Your task to perform on an android device: Is it going to rain this weekend? Image 0: 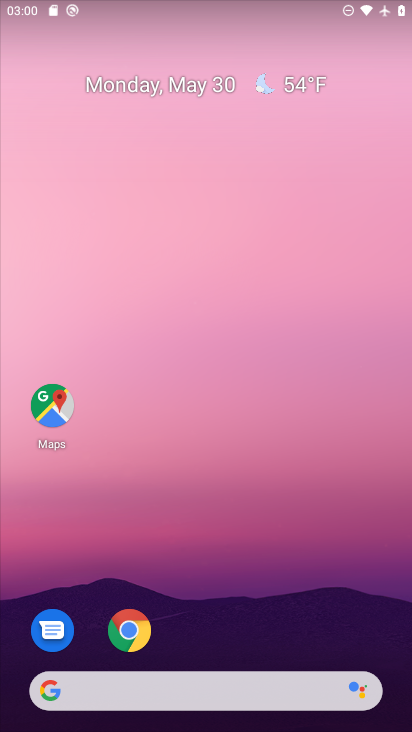
Step 0: click (306, 80)
Your task to perform on an android device: Is it going to rain this weekend? Image 1: 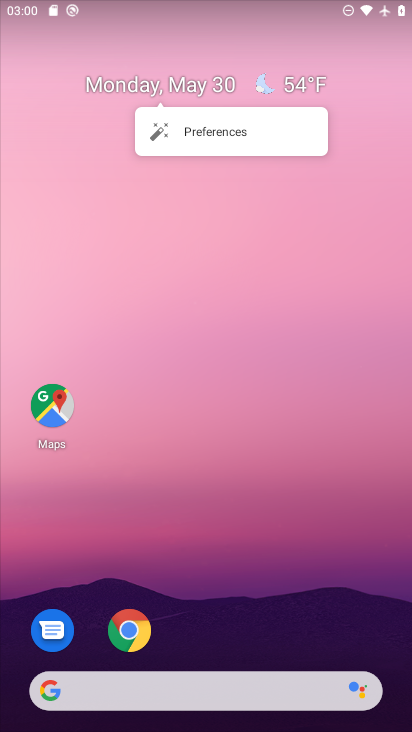
Step 1: click (301, 84)
Your task to perform on an android device: Is it going to rain this weekend? Image 2: 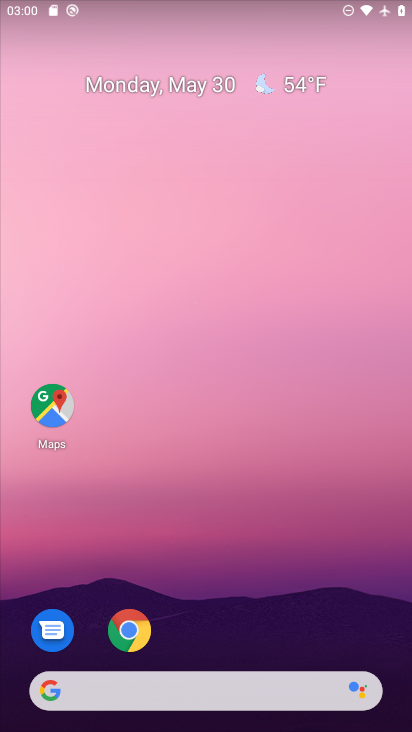
Step 2: click (267, 90)
Your task to perform on an android device: Is it going to rain this weekend? Image 3: 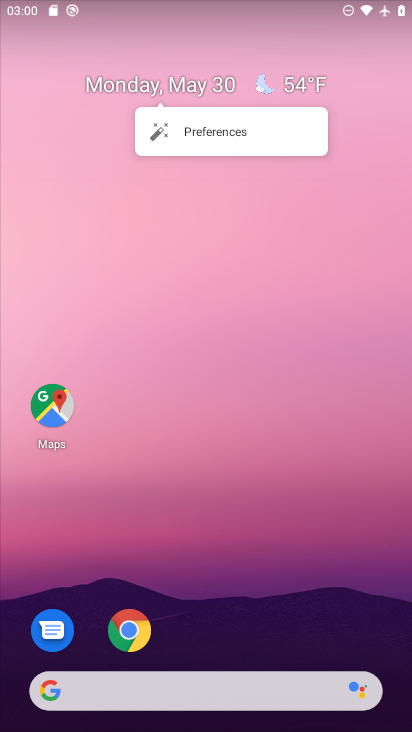
Step 3: click (262, 86)
Your task to perform on an android device: Is it going to rain this weekend? Image 4: 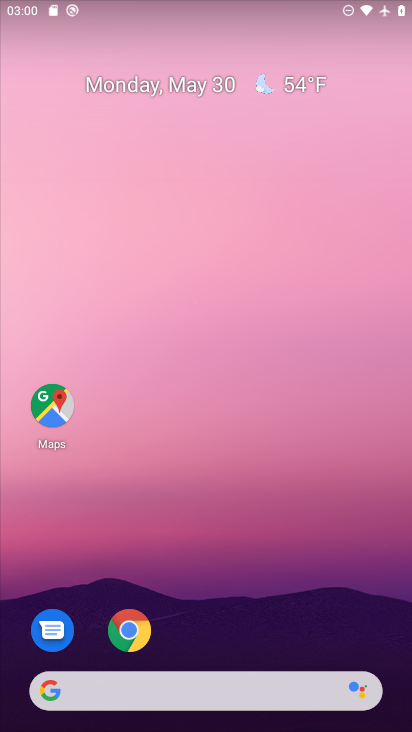
Step 4: click (291, 80)
Your task to perform on an android device: Is it going to rain this weekend? Image 5: 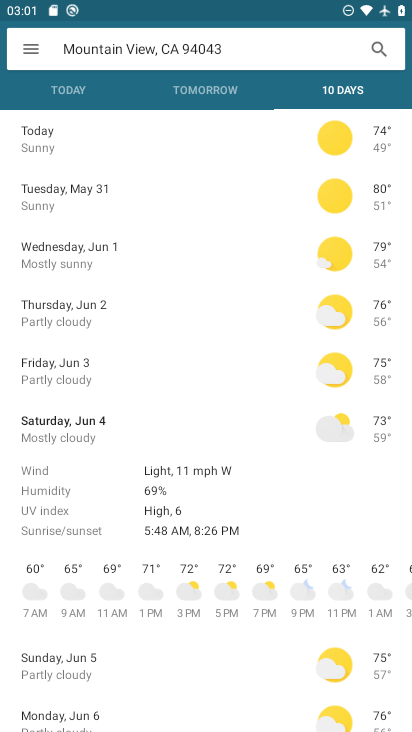
Step 5: task complete